Your task to perform on an android device: toggle pop-ups in chrome Image 0: 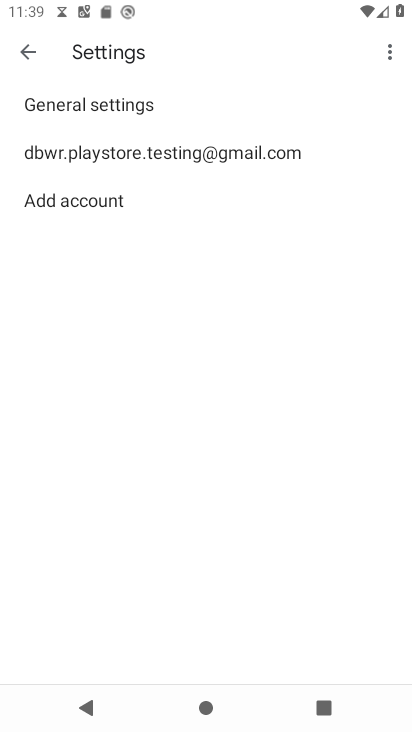
Step 0: press home button
Your task to perform on an android device: toggle pop-ups in chrome Image 1: 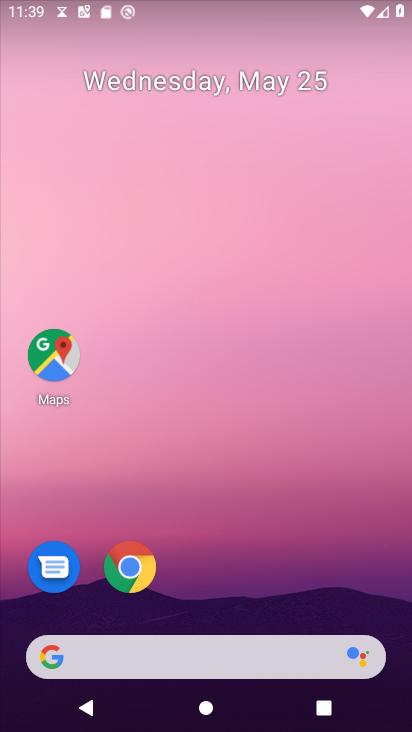
Step 1: click (134, 573)
Your task to perform on an android device: toggle pop-ups in chrome Image 2: 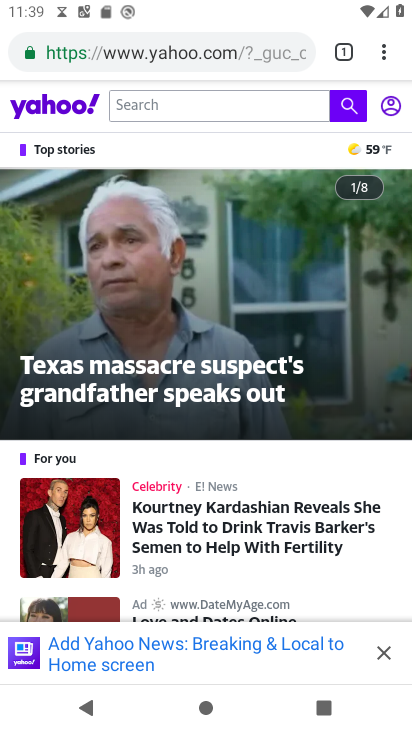
Step 2: click (379, 53)
Your task to perform on an android device: toggle pop-ups in chrome Image 3: 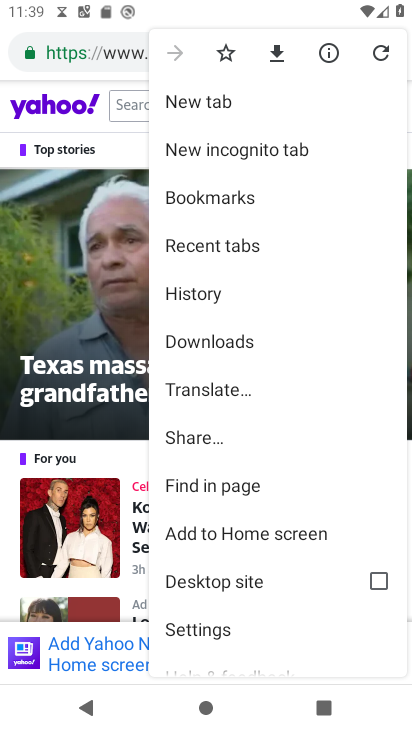
Step 3: click (225, 637)
Your task to perform on an android device: toggle pop-ups in chrome Image 4: 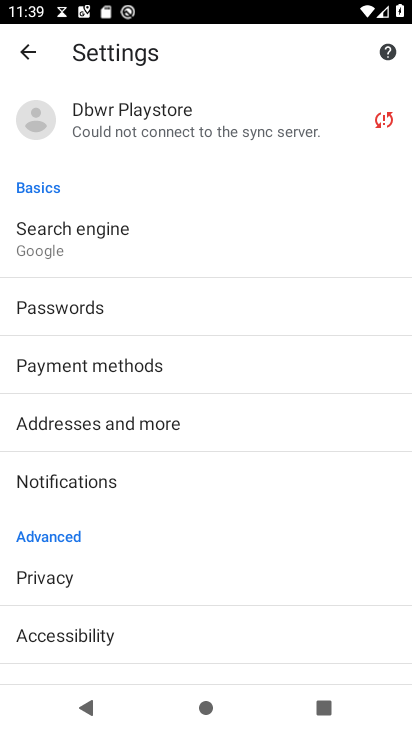
Step 4: drag from (196, 553) to (223, 66)
Your task to perform on an android device: toggle pop-ups in chrome Image 5: 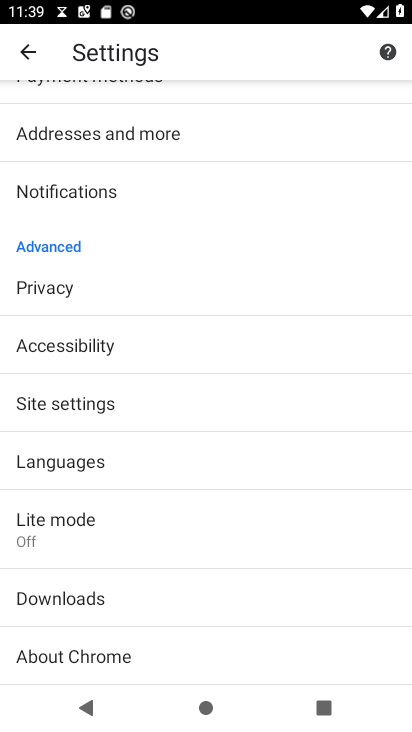
Step 5: click (83, 406)
Your task to perform on an android device: toggle pop-ups in chrome Image 6: 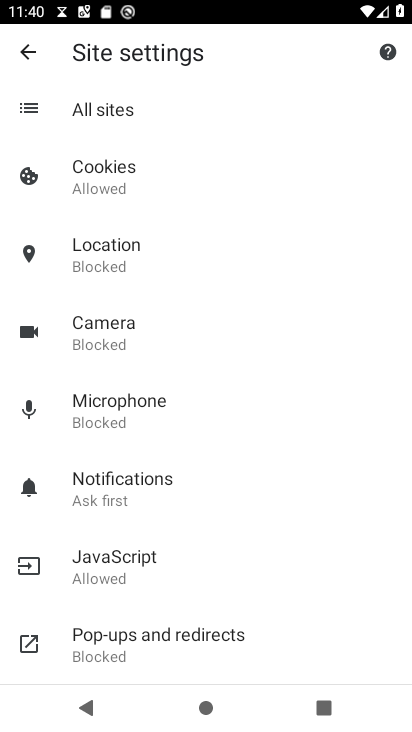
Step 6: click (105, 624)
Your task to perform on an android device: toggle pop-ups in chrome Image 7: 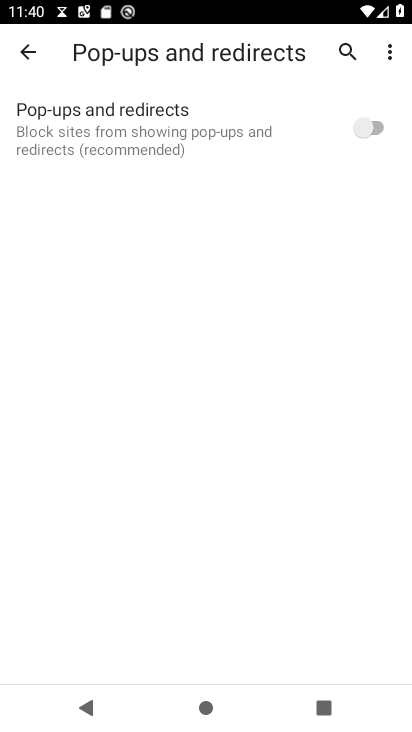
Step 7: click (368, 116)
Your task to perform on an android device: toggle pop-ups in chrome Image 8: 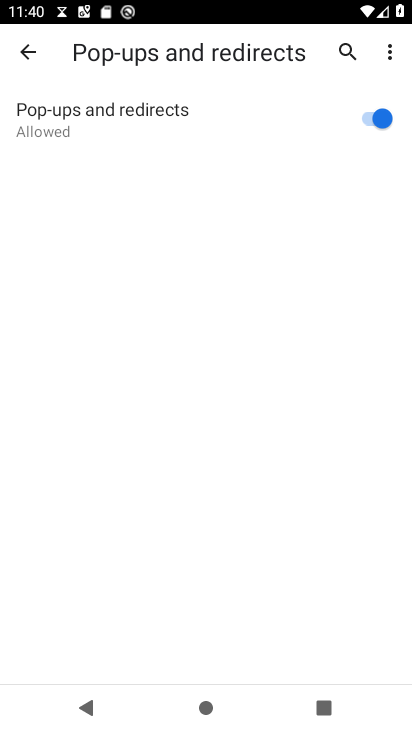
Step 8: task complete